Your task to perform on an android device: turn off improve location accuracy Image 0: 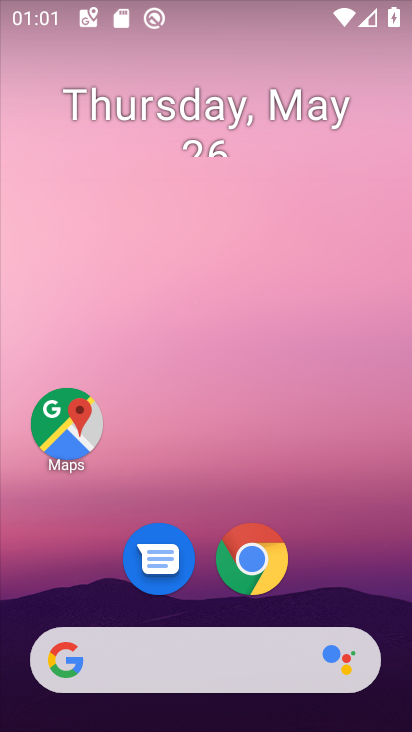
Step 0: press home button
Your task to perform on an android device: turn off improve location accuracy Image 1: 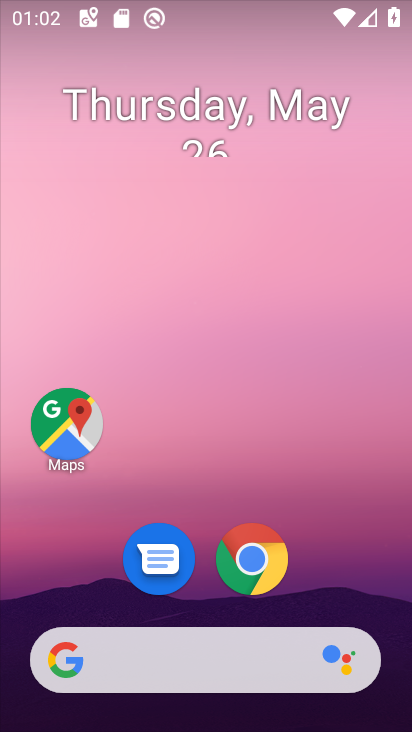
Step 1: drag from (348, 579) to (337, 59)
Your task to perform on an android device: turn off improve location accuracy Image 2: 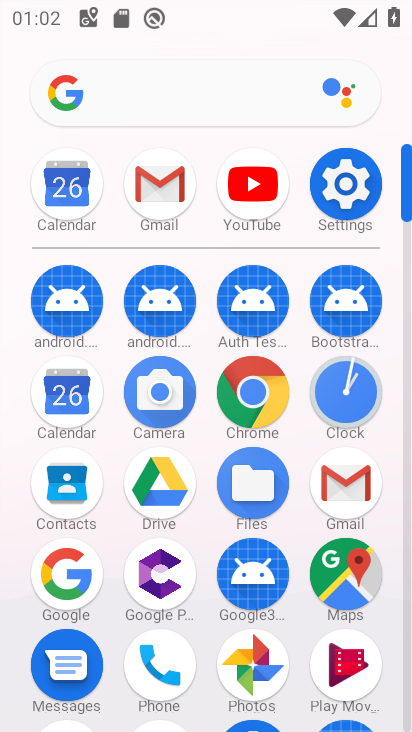
Step 2: click (336, 189)
Your task to perform on an android device: turn off improve location accuracy Image 3: 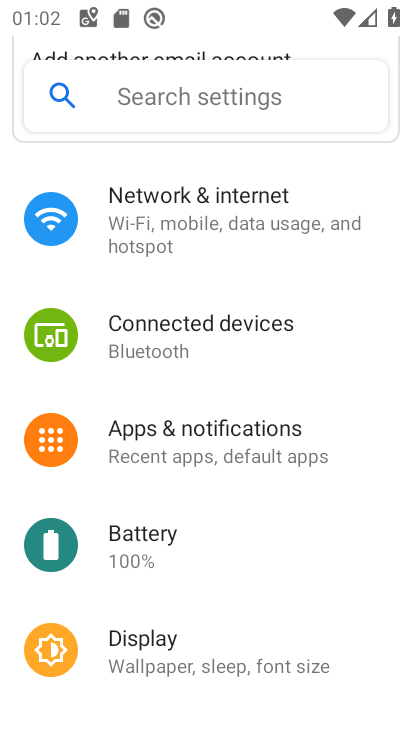
Step 3: drag from (311, 549) to (322, 62)
Your task to perform on an android device: turn off improve location accuracy Image 4: 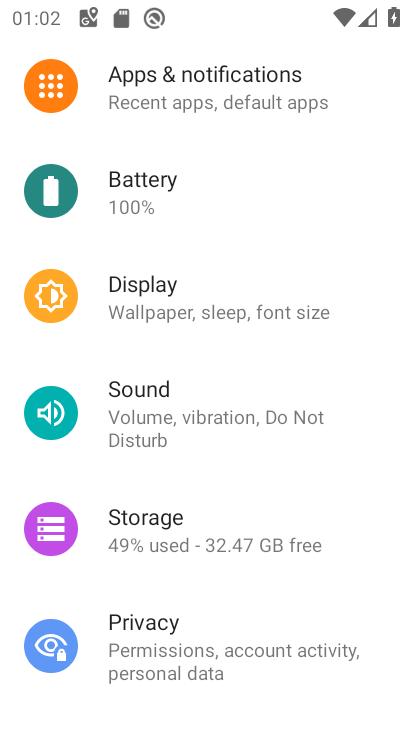
Step 4: drag from (285, 482) to (305, 92)
Your task to perform on an android device: turn off improve location accuracy Image 5: 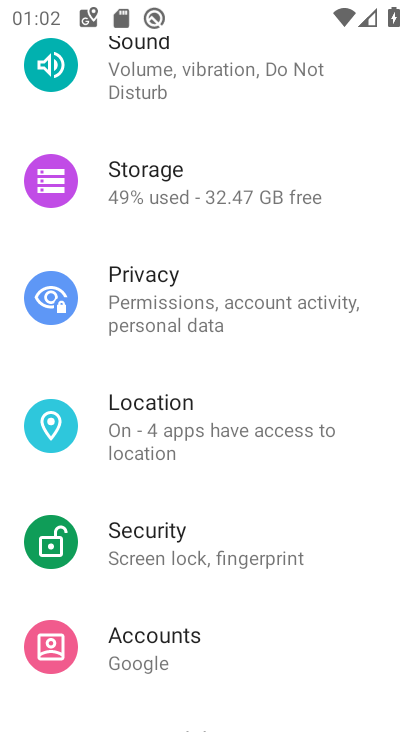
Step 5: click (165, 409)
Your task to perform on an android device: turn off improve location accuracy Image 6: 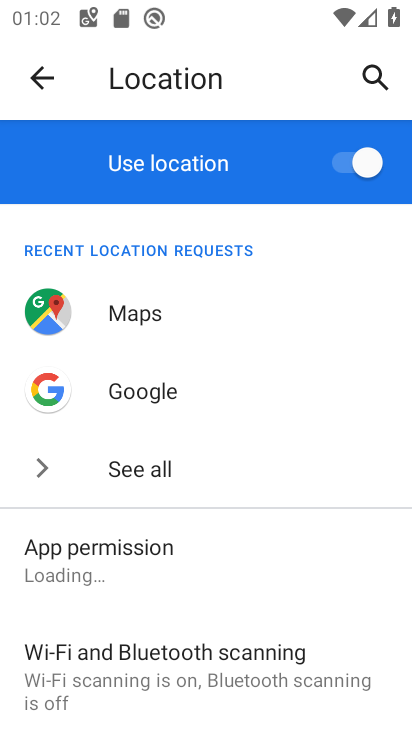
Step 6: drag from (291, 569) to (305, 97)
Your task to perform on an android device: turn off improve location accuracy Image 7: 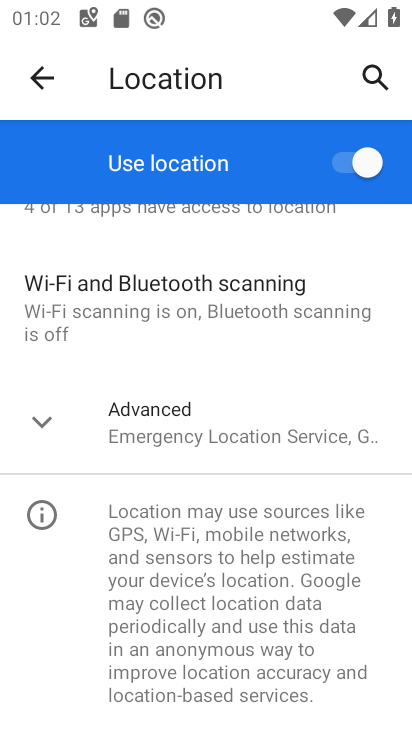
Step 7: click (188, 433)
Your task to perform on an android device: turn off improve location accuracy Image 8: 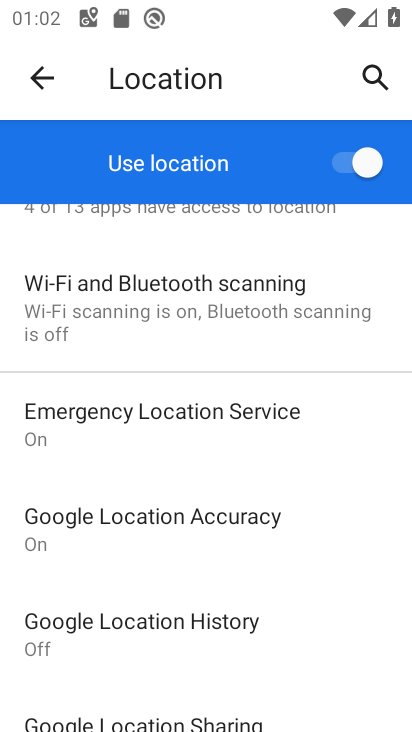
Step 8: click (220, 521)
Your task to perform on an android device: turn off improve location accuracy Image 9: 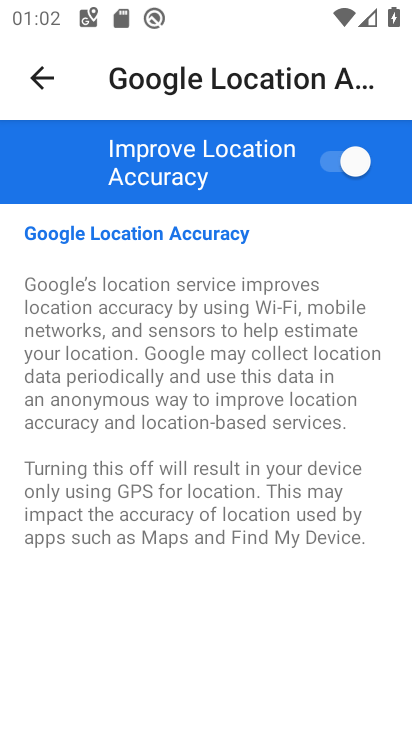
Step 9: click (352, 160)
Your task to perform on an android device: turn off improve location accuracy Image 10: 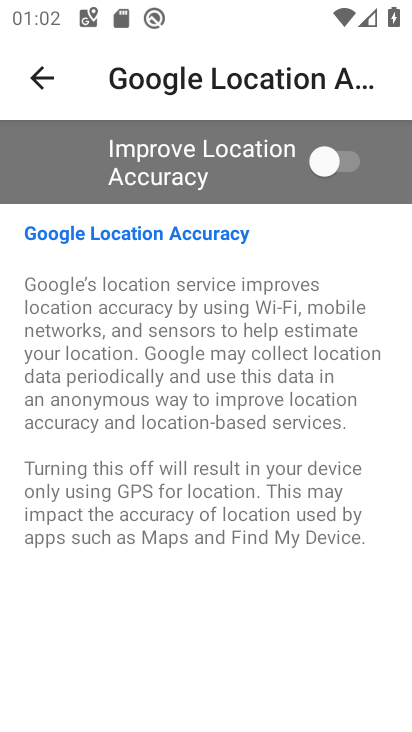
Step 10: task complete